Your task to perform on an android device: toggle wifi Image 0: 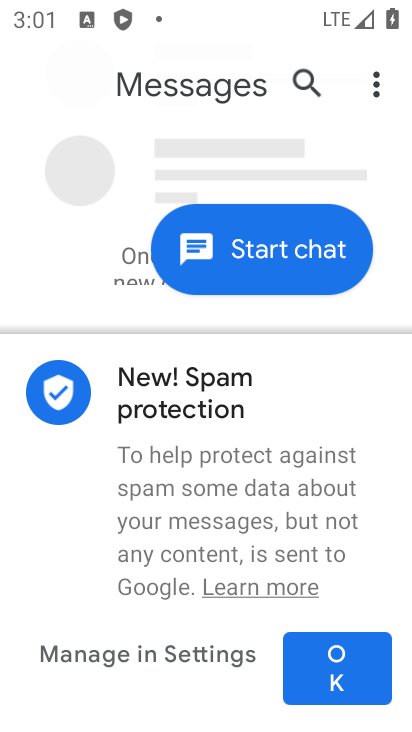
Step 0: press home button
Your task to perform on an android device: toggle wifi Image 1: 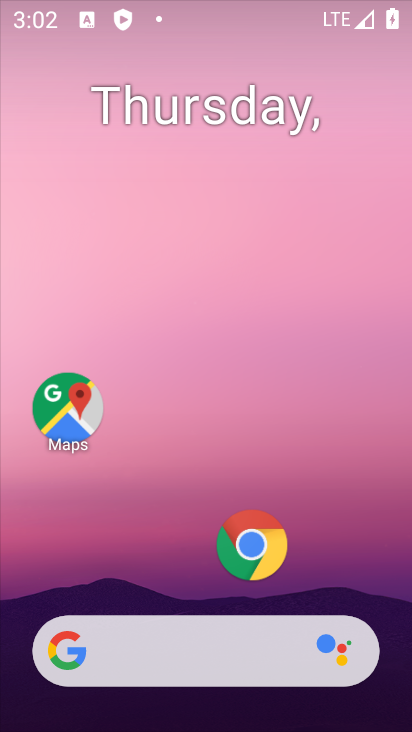
Step 1: drag from (230, 667) to (261, 40)
Your task to perform on an android device: toggle wifi Image 2: 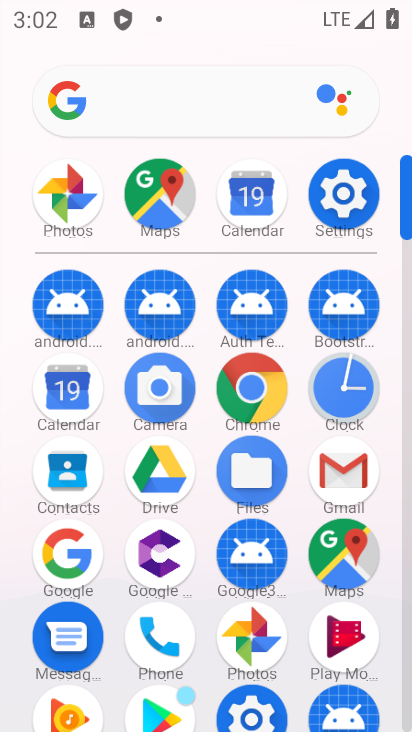
Step 2: click (352, 208)
Your task to perform on an android device: toggle wifi Image 3: 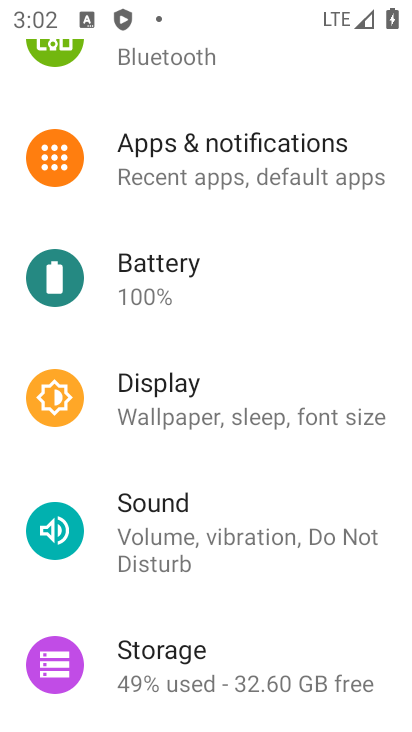
Step 3: drag from (227, 138) to (246, 615)
Your task to perform on an android device: toggle wifi Image 4: 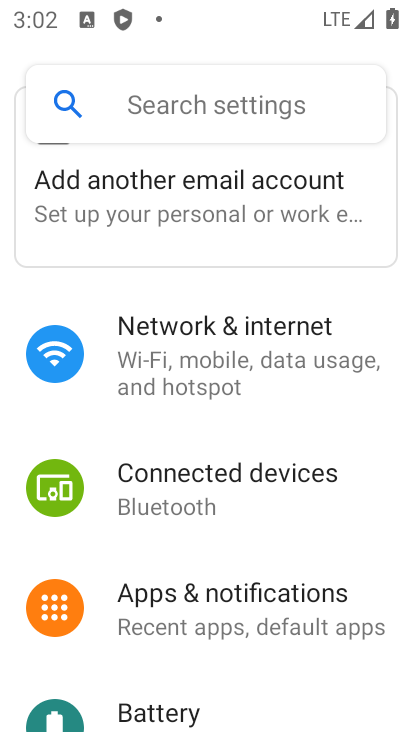
Step 4: click (215, 340)
Your task to perform on an android device: toggle wifi Image 5: 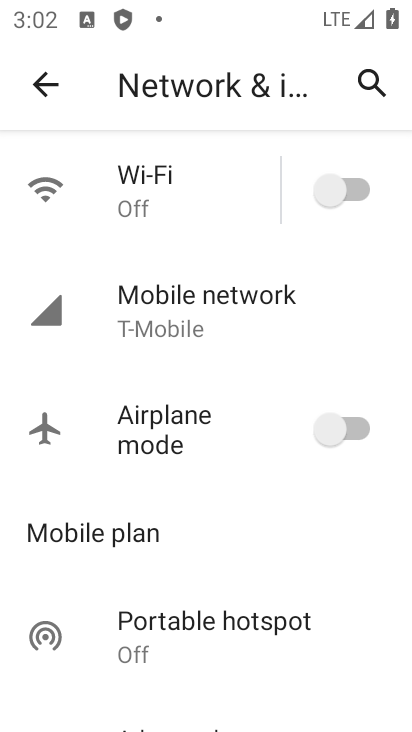
Step 5: click (354, 190)
Your task to perform on an android device: toggle wifi Image 6: 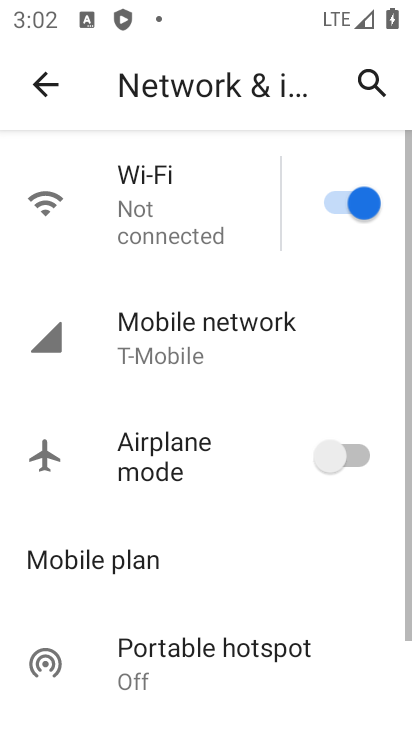
Step 6: task complete